Your task to perform on an android device: turn off smart reply in the gmail app Image 0: 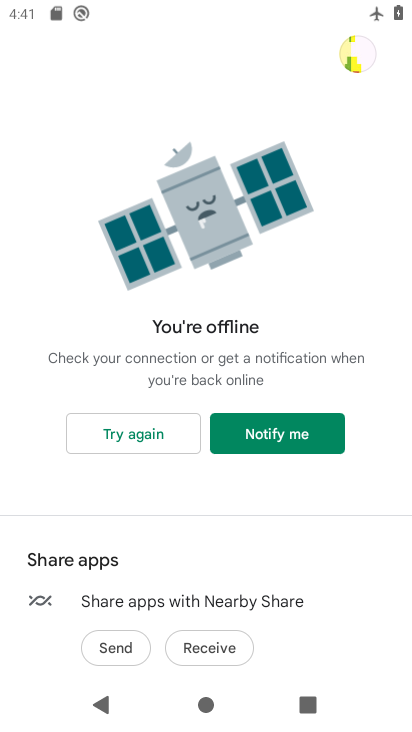
Step 0: press home button
Your task to perform on an android device: turn off smart reply in the gmail app Image 1: 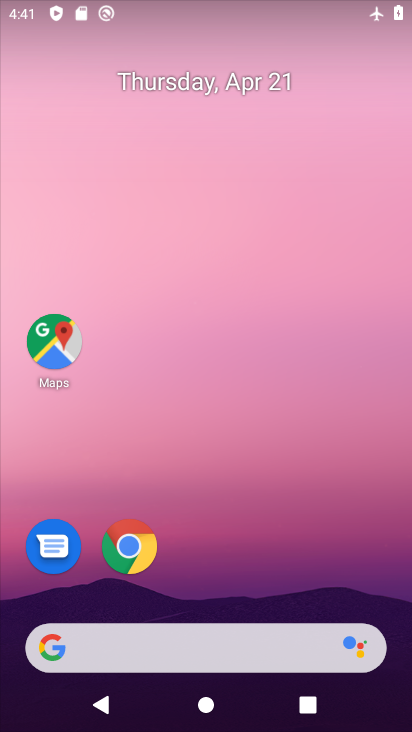
Step 1: drag from (215, 526) to (188, 161)
Your task to perform on an android device: turn off smart reply in the gmail app Image 2: 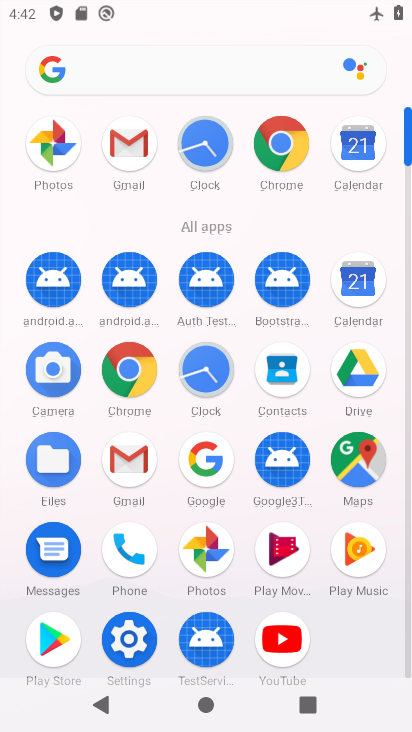
Step 2: click (132, 161)
Your task to perform on an android device: turn off smart reply in the gmail app Image 3: 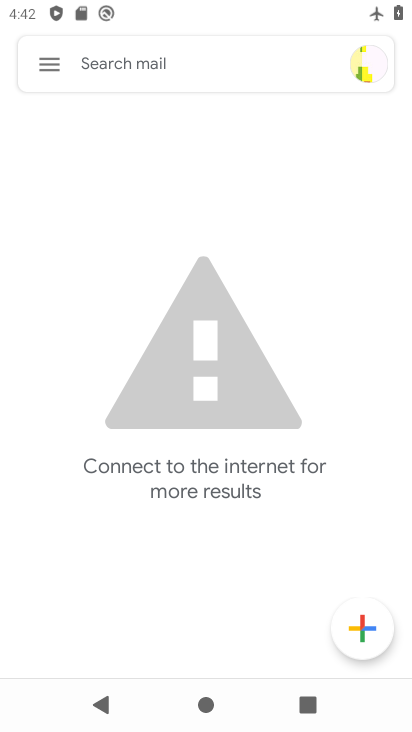
Step 3: click (41, 60)
Your task to perform on an android device: turn off smart reply in the gmail app Image 4: 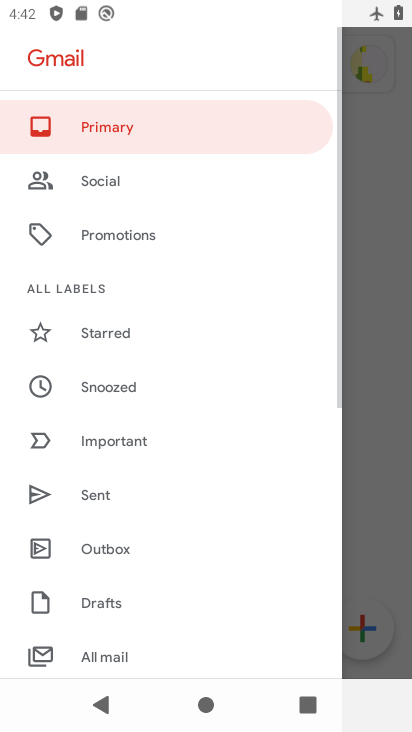
Step 4: drag from (98, 609) to (56, 139)
Your task to perform on an android device: turn off smart reply in the gmail app Image 5: 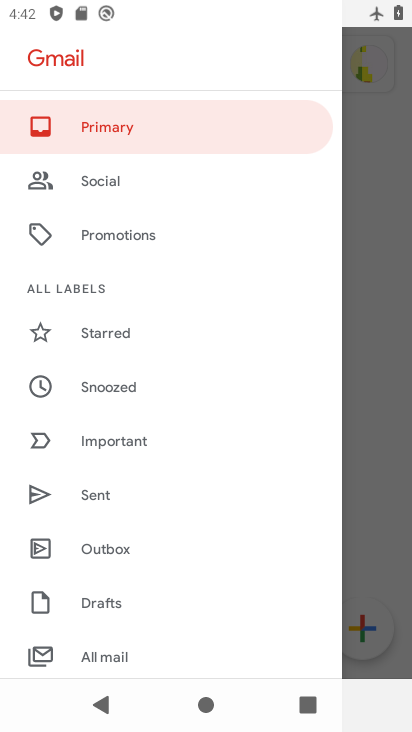
Step 5: drag from (137, 636) to (153, 182)
Your task to perform on an android device: turn off smart reply in the gmail app Image 6: 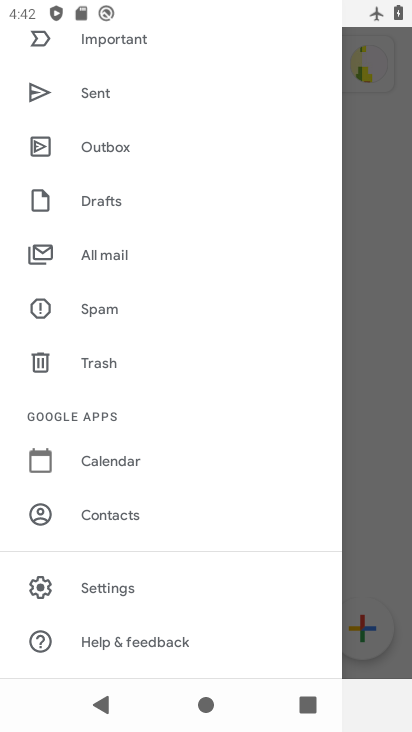
Step 6: click (111, 588)
Your task to perform on an android device: turn off smart reply in the gmail app Image 7: 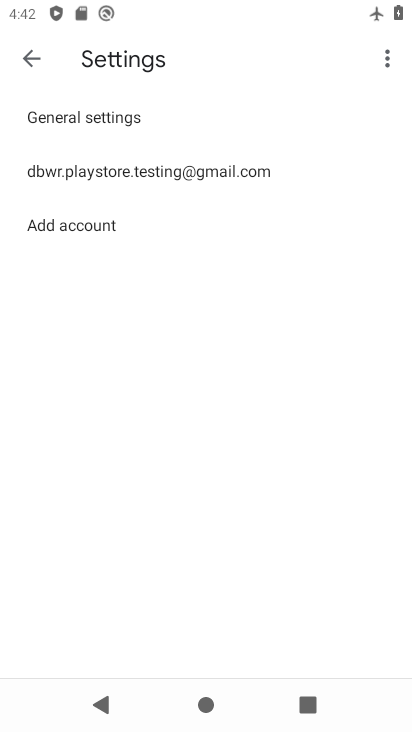
Step 7: click (130, 173)
Your task to perform on an android device: turn off smart reply in the gmail app Image 8: 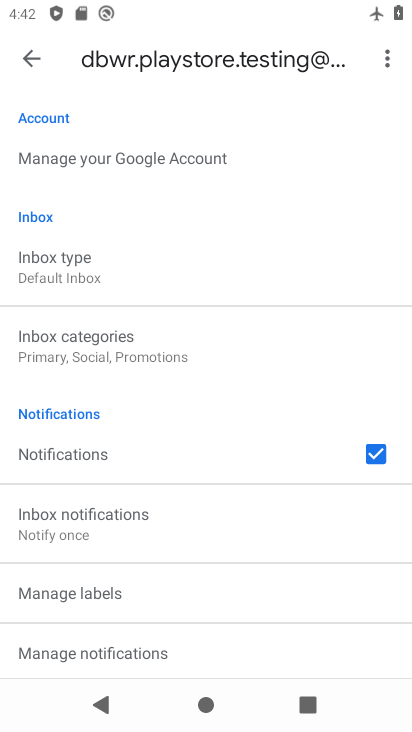
Step 8: drag from (191, 632) to (144, 214)
Your task to perform on an android device: turn off smart reply in the gmail app Image 9: 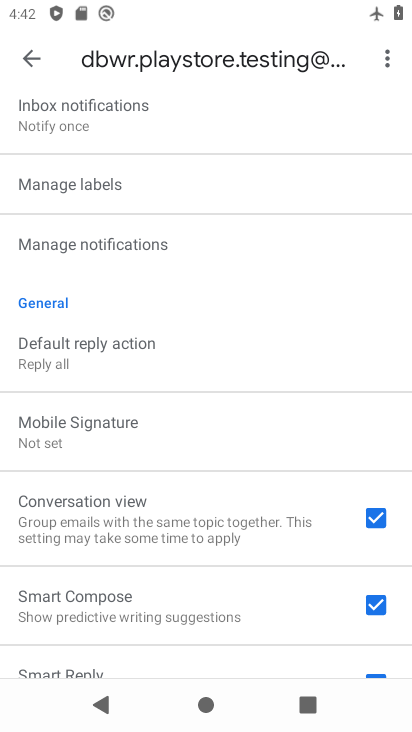
Step 9: drag from (188, 576) to (232, 254)
Your task to perform on an android device: turn off smart reply in the gmail app Image 10: 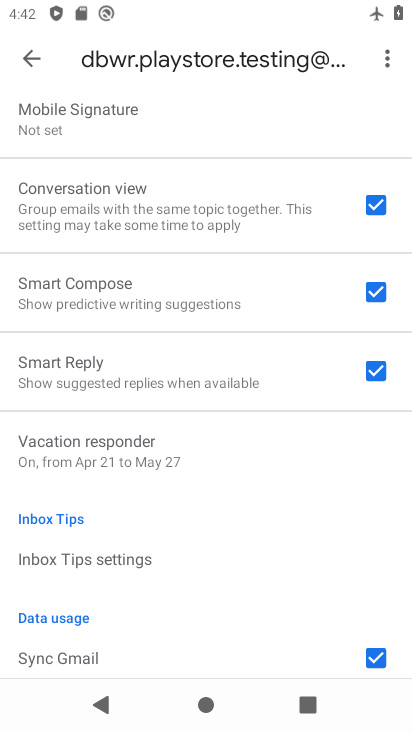
Step 10: click (372, 372)
Your task to perform on an android device: turn off smart reply in the gmail app Image 11: 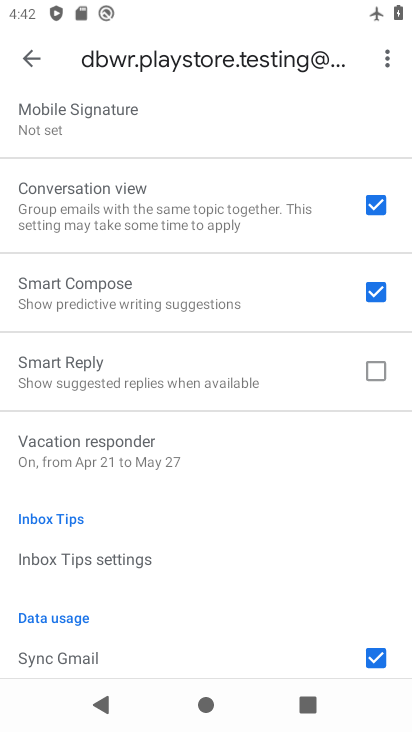
Step 11: task complete